Your task to perform on an android device: open app "Messages" (install if not already installed), go to login, and select forgot password Image 0: 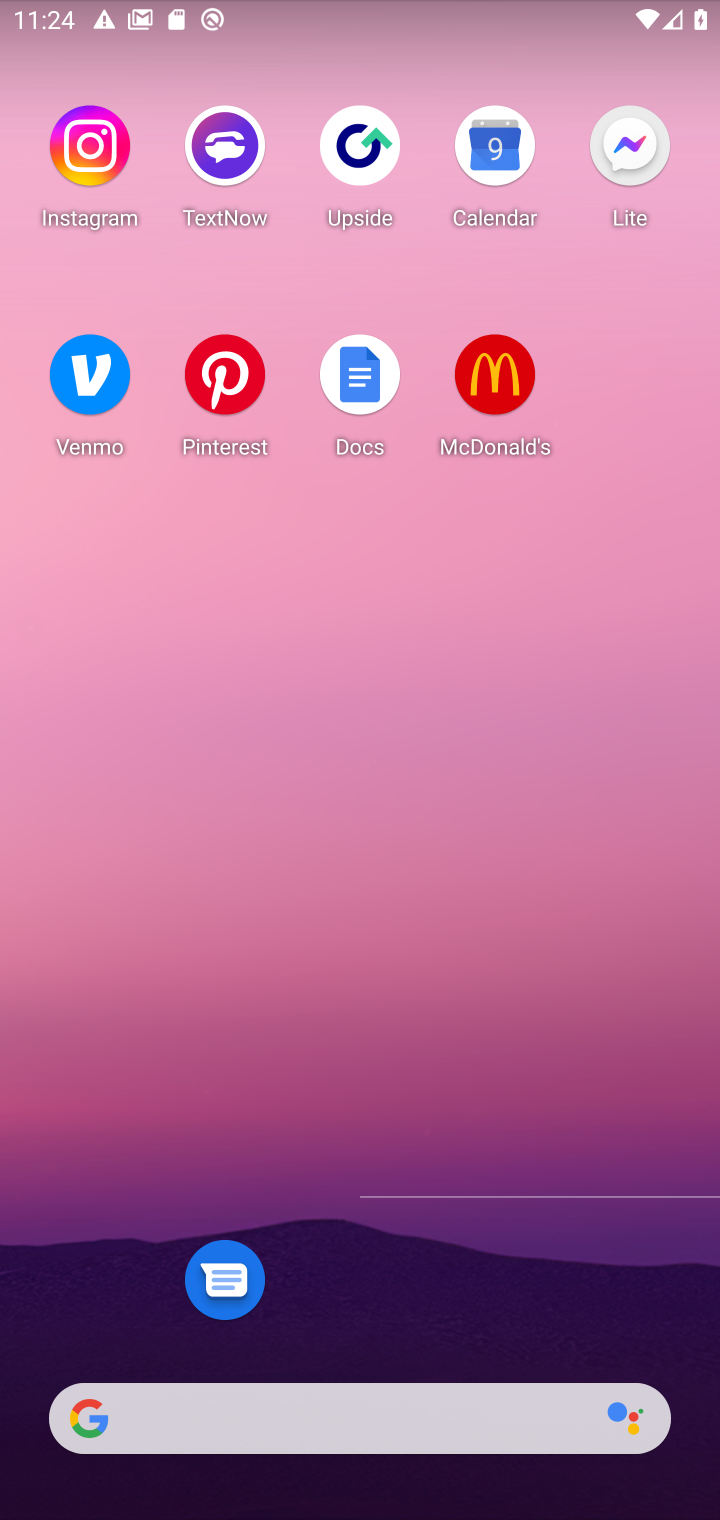
Step 0: click (177, 1240)
Your task to perform on an android device: open app "Messages" (install if not already installed), go to login, and select forgot password Image 1: 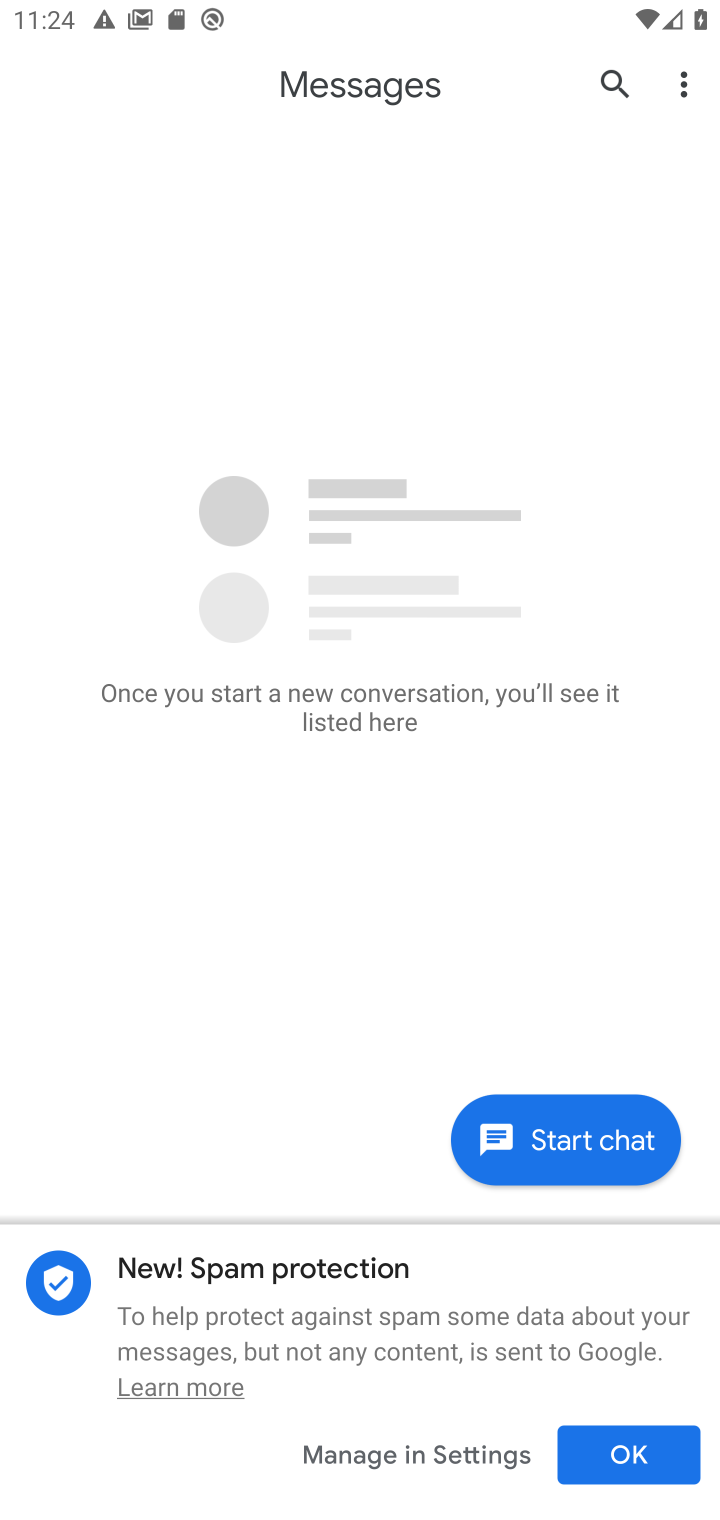
Step 1: click (245, 1277)
Your task to perform on an android device: open app "Messages" (install if not already installed), go to login, and select forgot password Image 2: 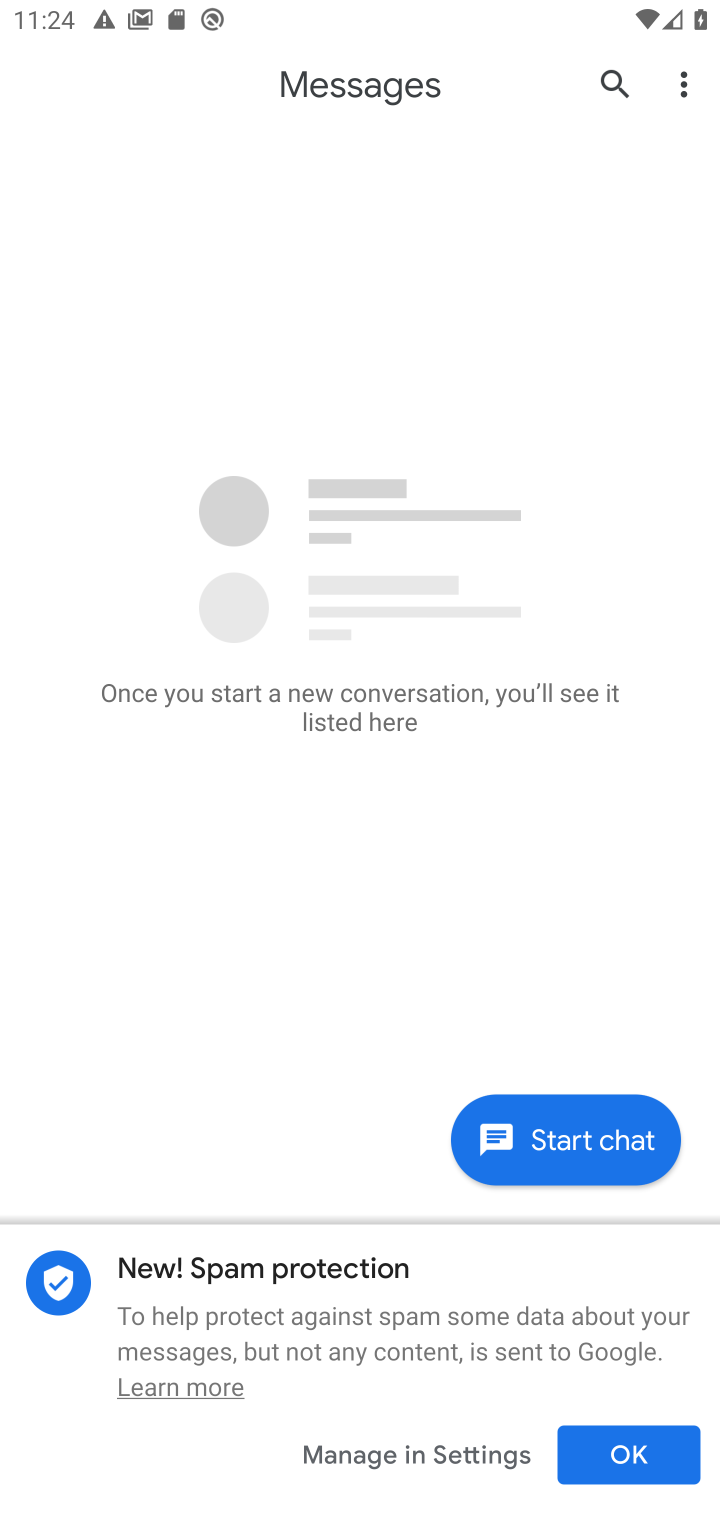
Step 2: click (609, 1464)
Your task to perform on an android device: open app "Messages" (install if not already installed), go to login, and select forgot password Image 3: 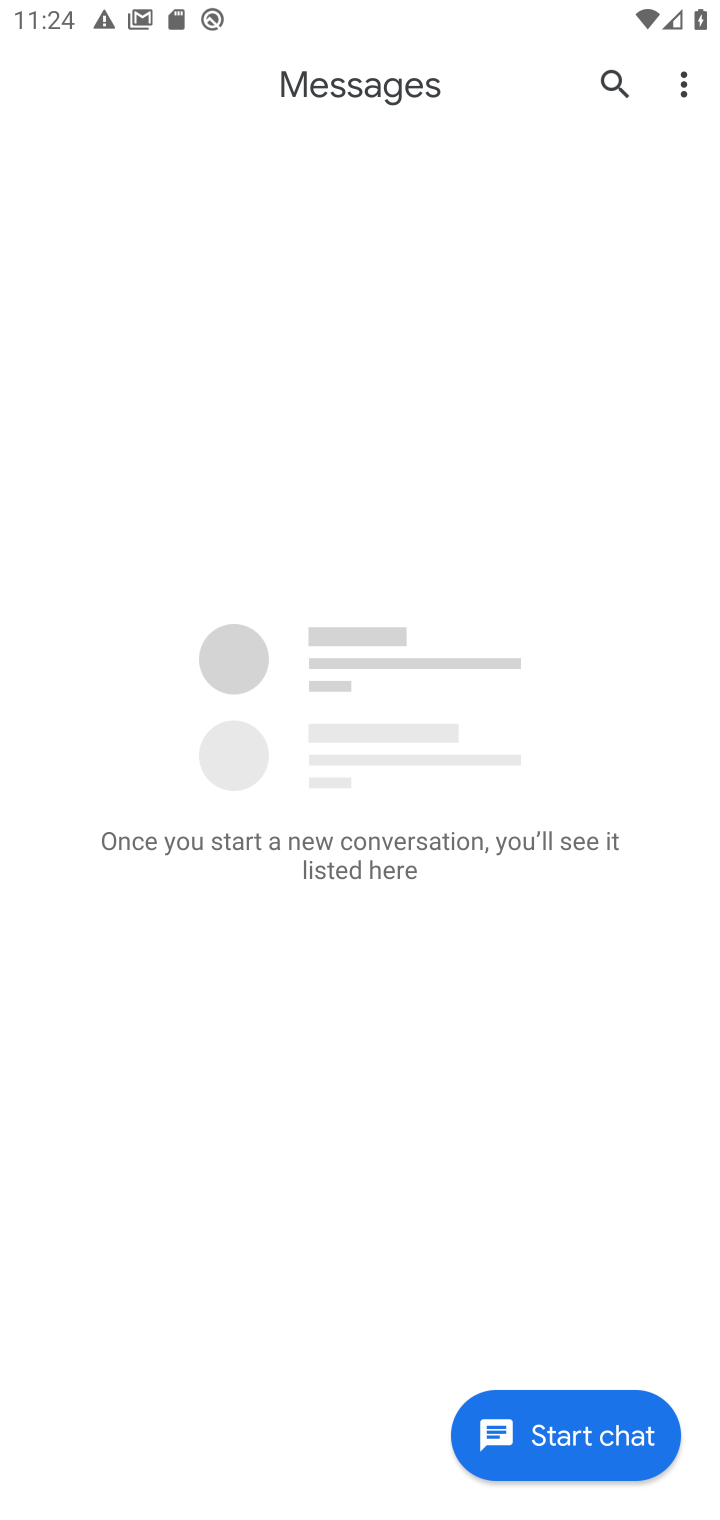
Step 3: task complete